Your task to perform on an android device: Go to network settings Image 0: 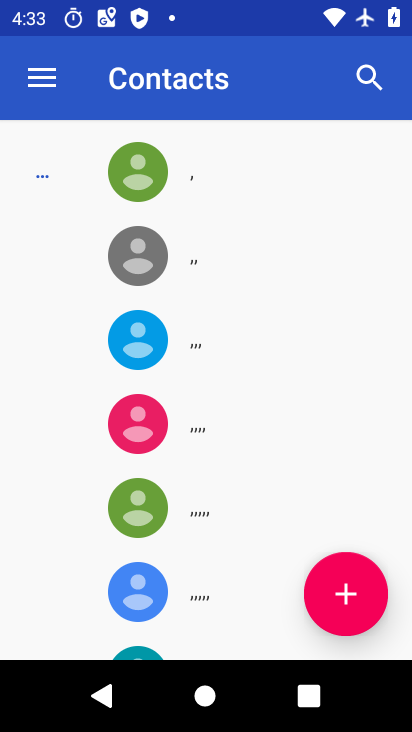
Step 0: press home button
Your task to perform on an android device: Go to network settings Image 1: 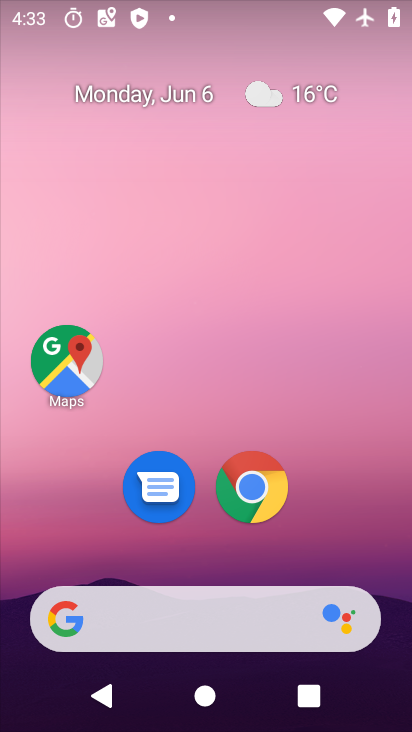
Step 1: drag from (370, 511) to (368, 117)
Your task to perform on an android device: Go to network settings Image 2: 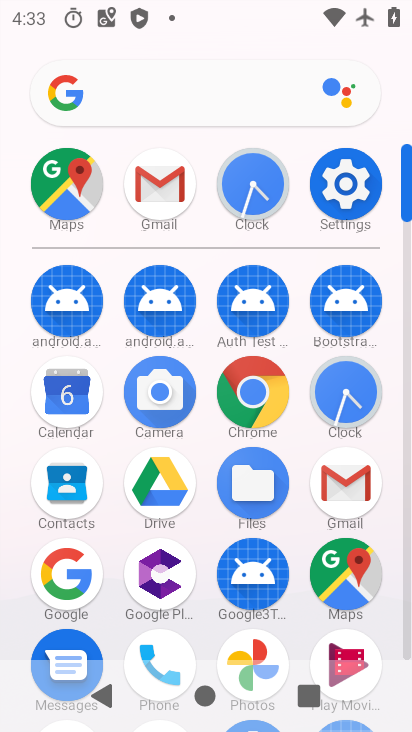
Step 2: click (355, 182)
Your task to perform on an android device: Go to network settings Image 3: 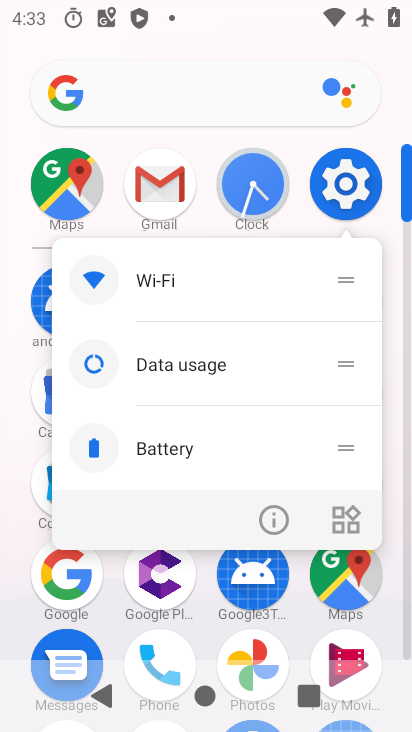
Step 3: click (356, 183)
Your task to perform on an android device: Go to network settings Image 4: 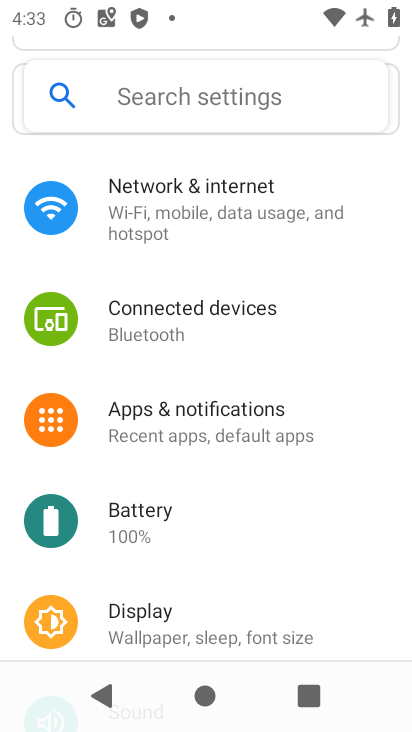
Step 4: click (249, 198)
Your task to perform on an android device: Go to network settings Image 5: 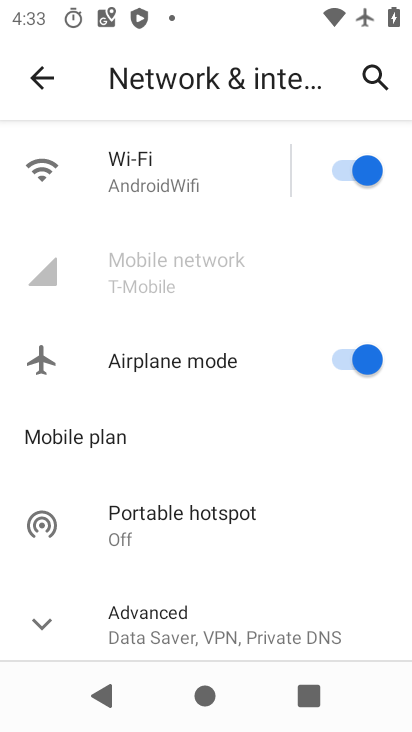
Step 5: task complete